Your task to perform on an android device: Go to Maps Image 0: 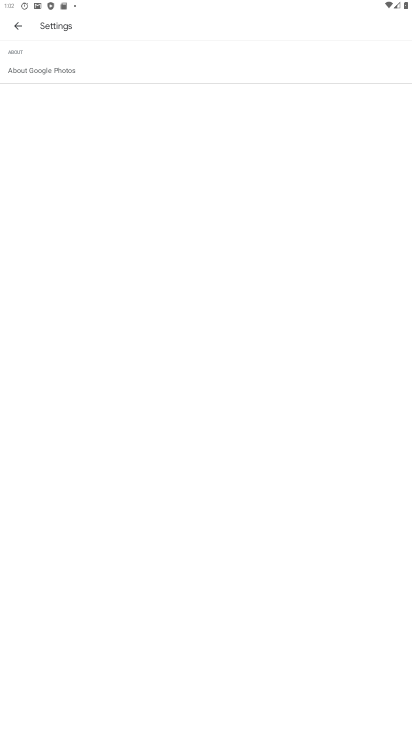
Step 0: press home button
Your task to perform on an android device: Go to Maps Image 1: 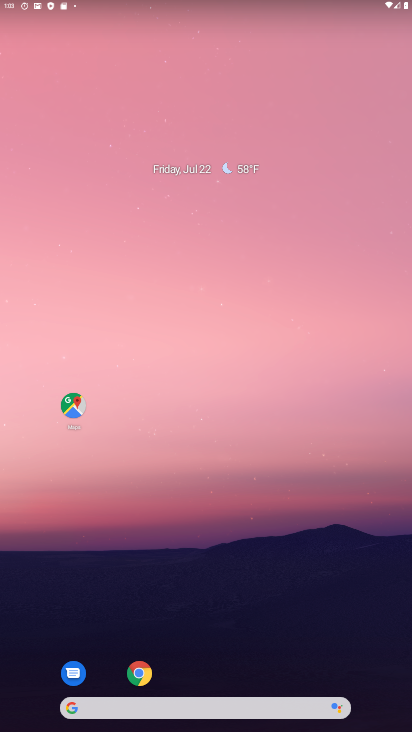
Step 1: click (74, 415)
Your task to perform on an android device: Go to Maps Image 2: 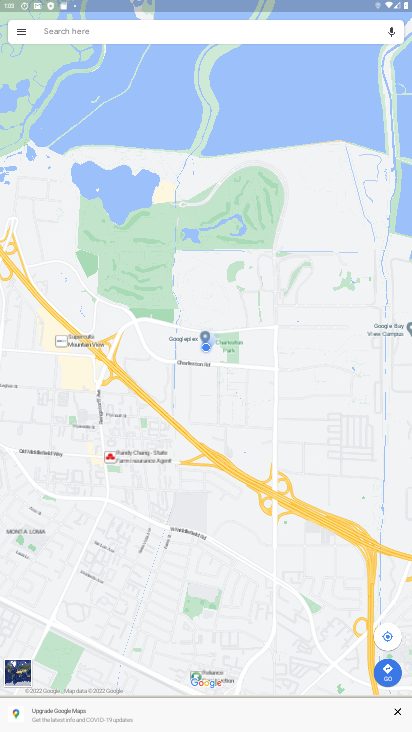
Step 2: task complete